Your task to perform on an android device: turn off javascript in the chrome app Image 0: 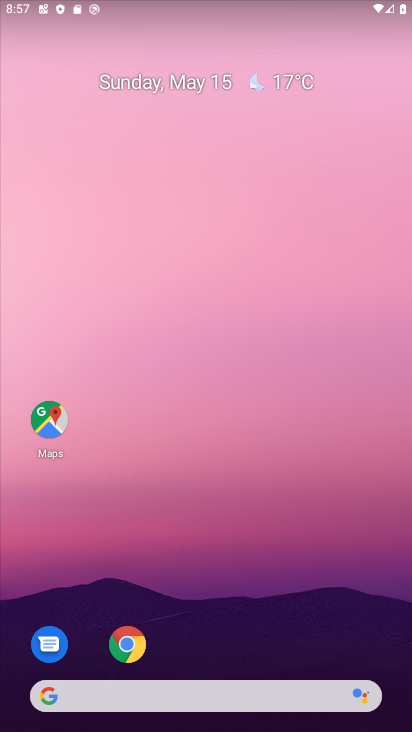
Step 0: drag from (256, 699) to (259, 152)
Your task to perform on an android device: turn off javascript in the chrome app Image 1: 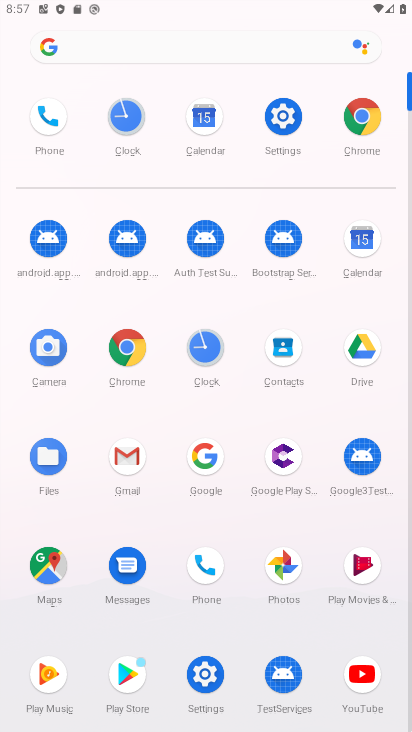
Step 1: click (359, 109)
Your task to perform on an android device: turn off javascript in the chrome app Image 2: 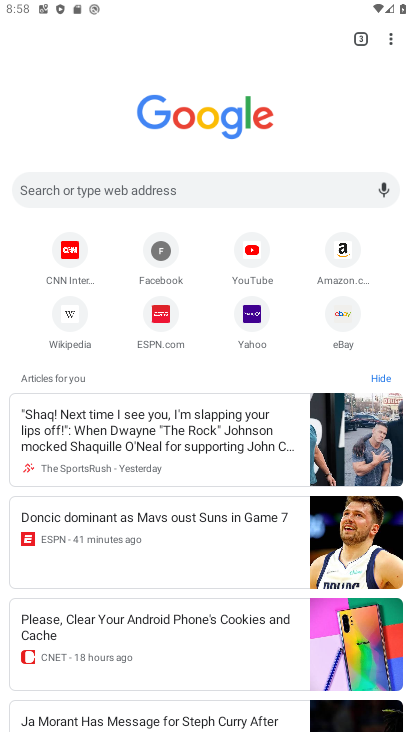
Step 2: click (379, 44)
Your task to perform on an android device: turn off javascript in the chrome app Image 3: 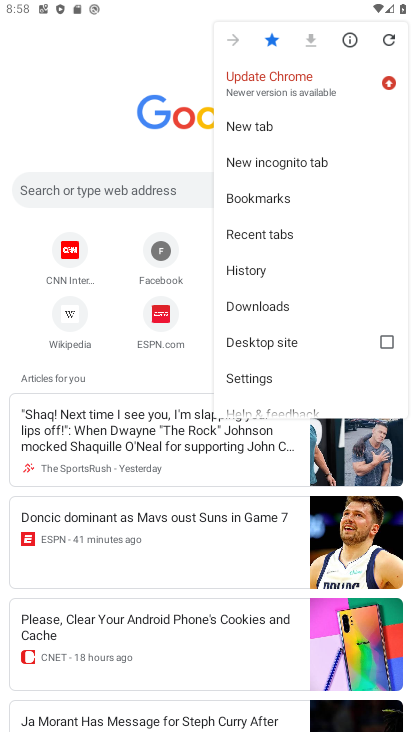
Step 3: click (258, 373)
Your task to perform on an android device: turn off javascript in the chrome app Image 4: 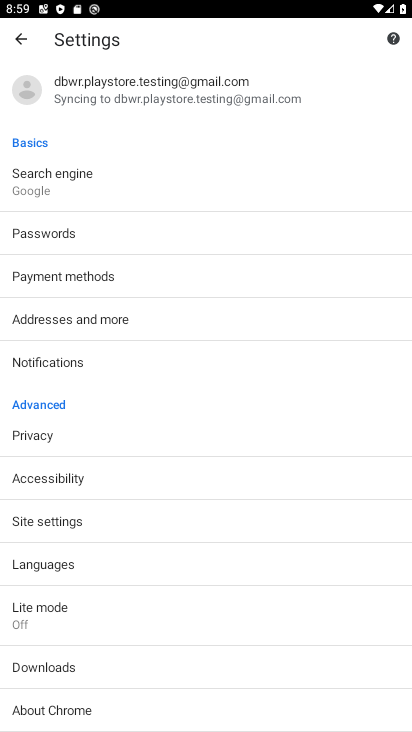
Step 4: click (119, 519)
Your task to perform on an android device: turn off javascript in the chrome app Image 5: 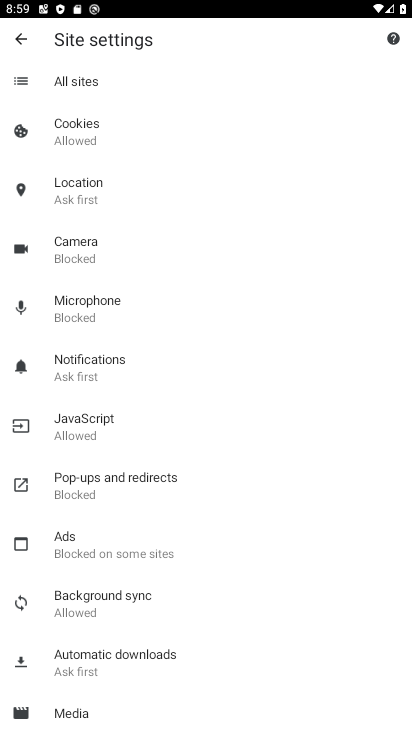
Step 5: click (99, 425)
Your task to perform on an android device: turn off javascript in the chrome app Image 6: 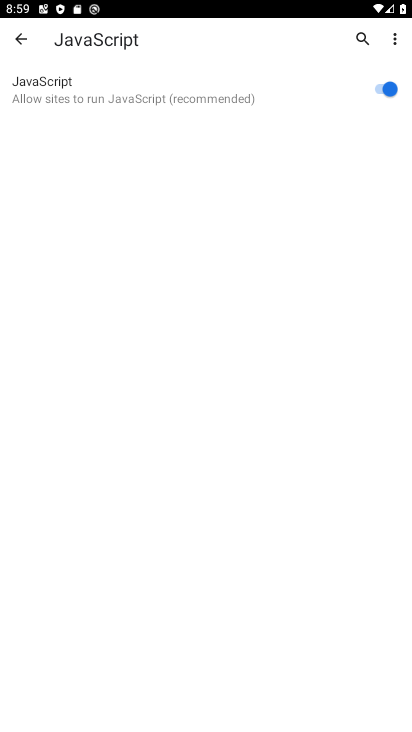
Step 6: click (380, 78)
Your task to perform on an android device: turn off javascript in the chrome app Image 7: 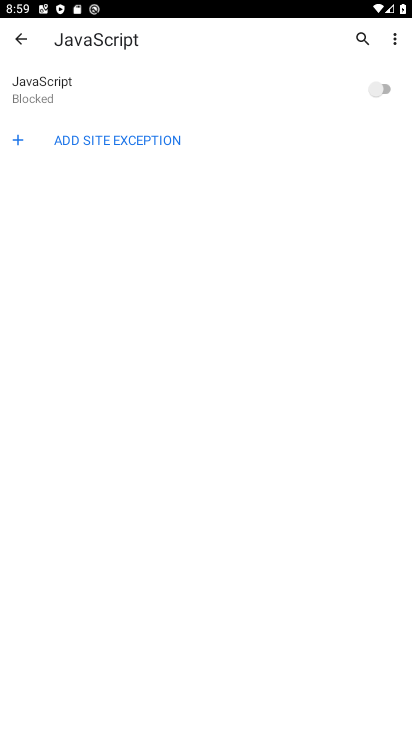
Step 7: task complete